Your task to perform on an android device: empty trash in google photos Image 0: 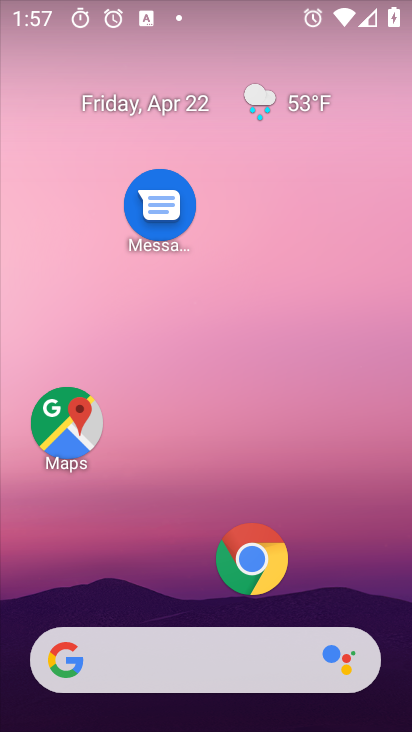
Step 0: drag from (246, 412) to (292, 161)
Your task to perform on an android device: empty trash in google photos Image 1: 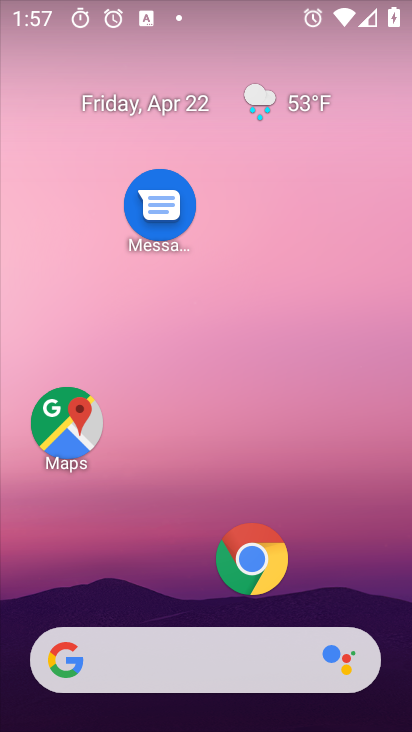
Step 1: drag from (204, 455) to (244, 161)
Your task to perform on an android device: empty trash in google photos Image 2: 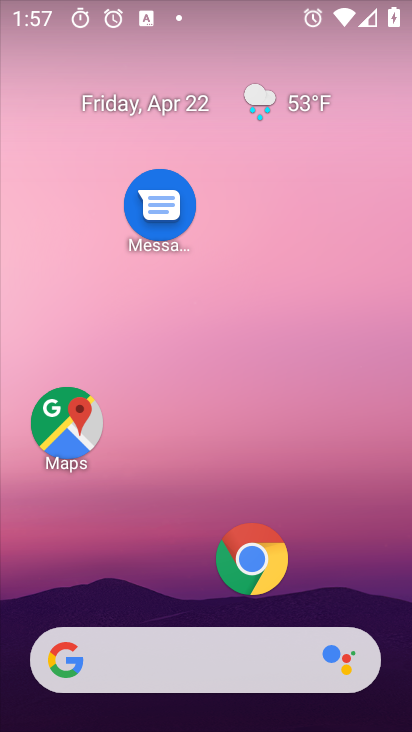
Step 2: drag from (172, 606) to (102, 91)
Your task to perform on an android device: empty trash in google photos Image 3: 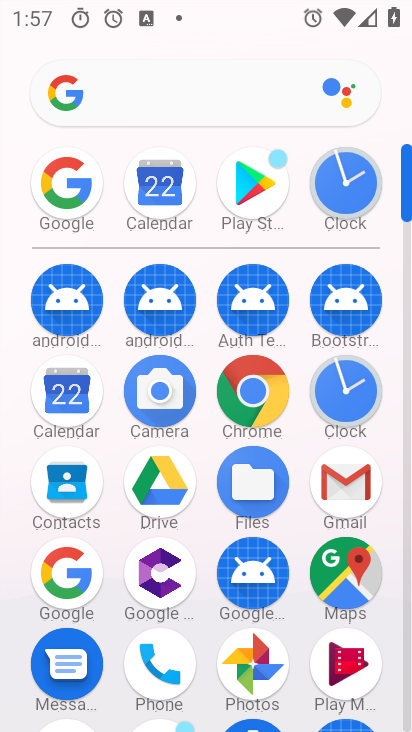
Step 3: click (406, 543)
Your task to perform on an android device: empty trash in google photos Image 4: 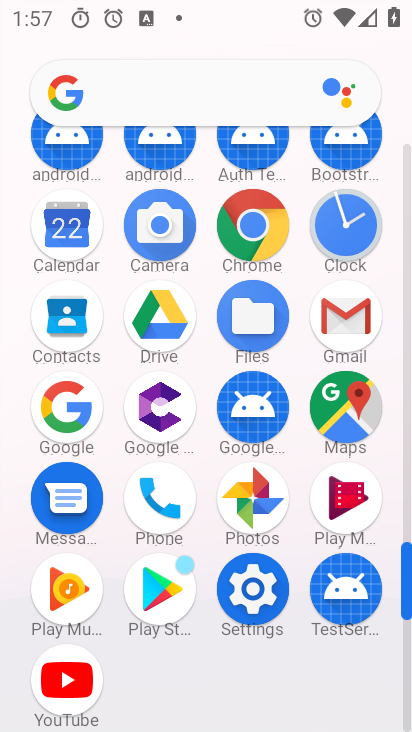
Step 4: click (268, 500)
Your task to perform on an android device: empty trash in google photos Image 5: 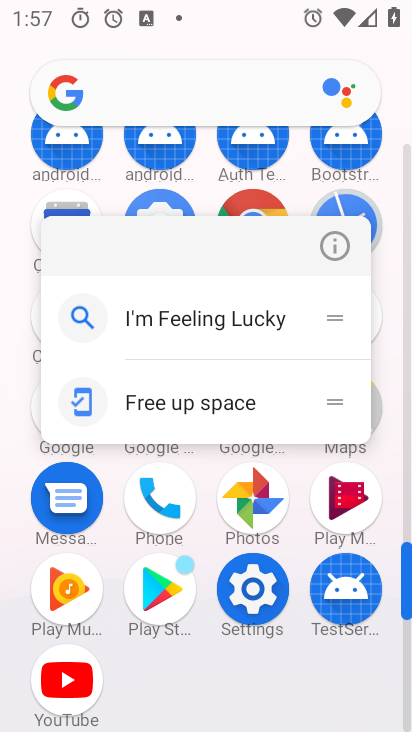
Step 5: click (265, 501)
Your task to perform on an android device: empty trash in google photos Image 6: 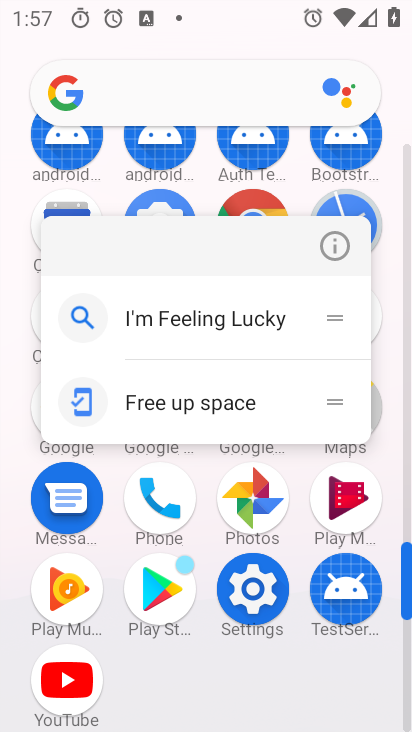
Step 6: click (255, 496)
Your task to perform on an android device: empty trash in google photos Image 7: 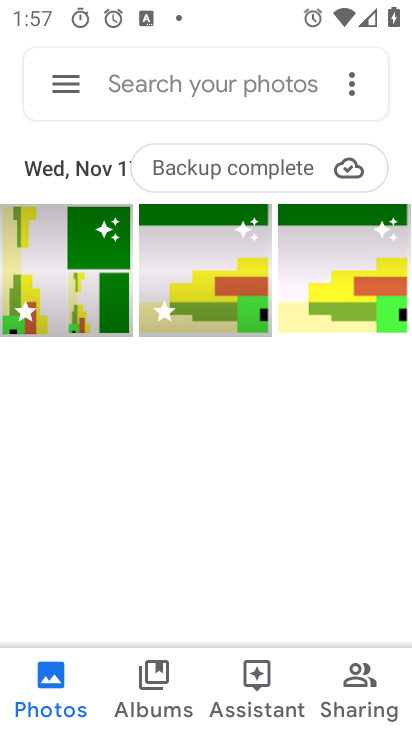
Step 7: click (63, 73)
Your task to perform on an android device: empty trash in google photos Image 8: 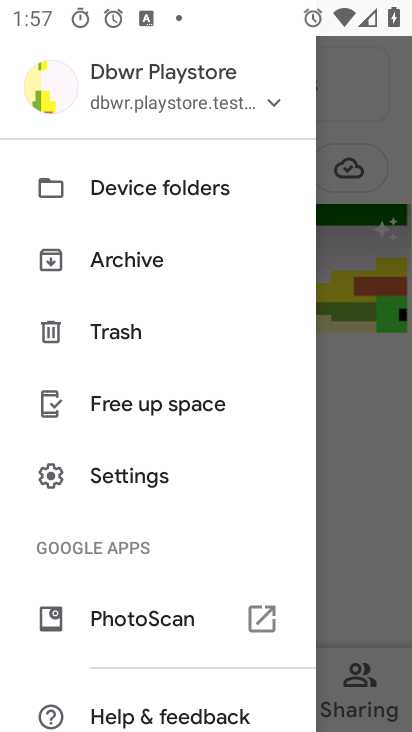
Step 8: click (81, 332)
Your task to perform on an android device: empty trash in google photos Image 9: 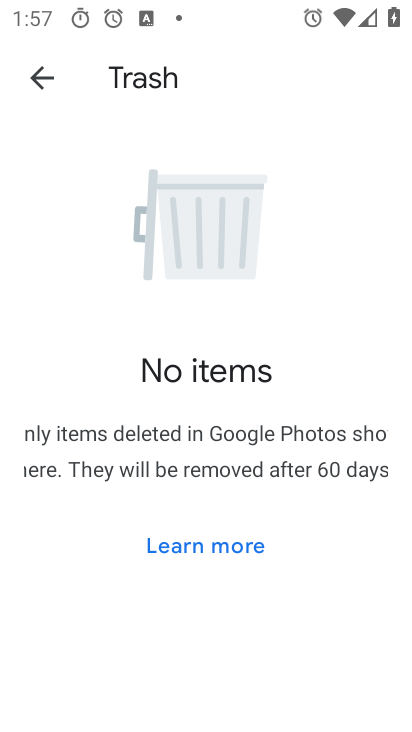
Step 9: task complete